Your task to perform on an android device: clear all cookies in the chrome app Image 0: 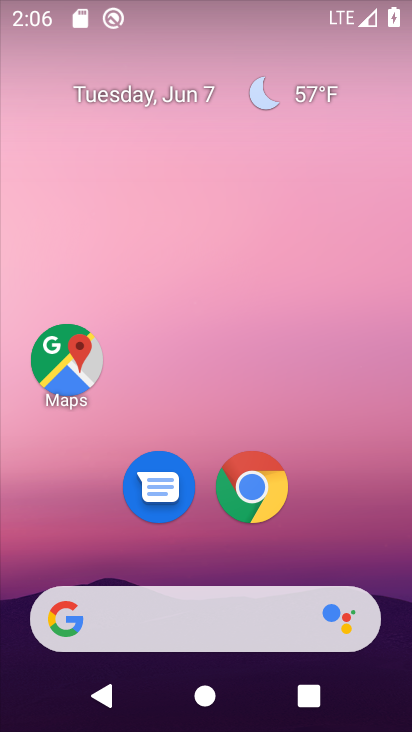
Step 0: click (263, 488)
Your task to perform on an android device: clear all cookies in the chrome app Image 1: 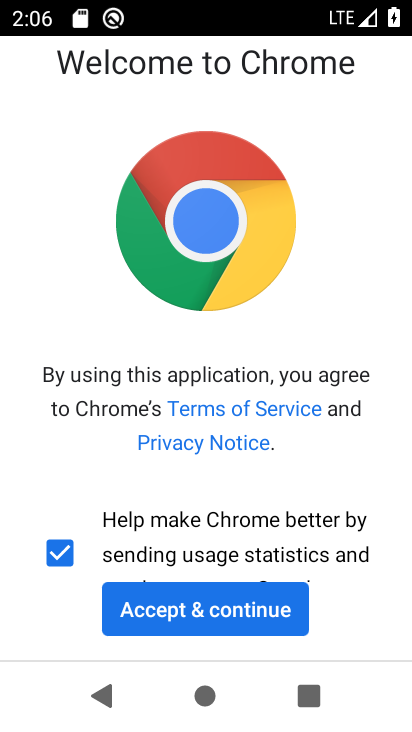
Step 1: click (253, 600)
Your task to perform on an android device: clear all cookies in the chrome app Image 2: 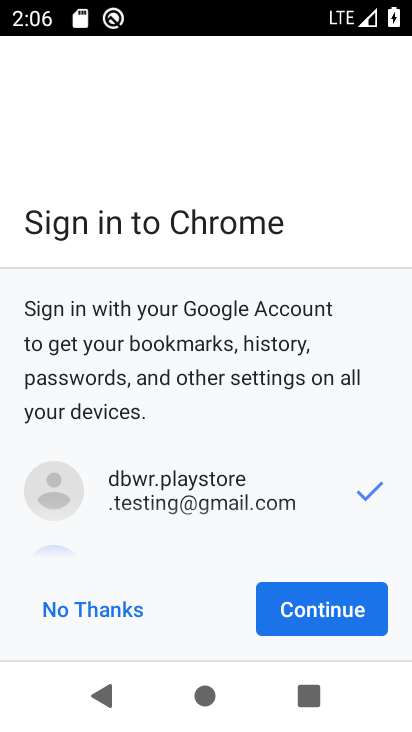
Step 2: click (291, 601)
Your task to perform on an android device: clear all cookies in the chrome app Image 3: 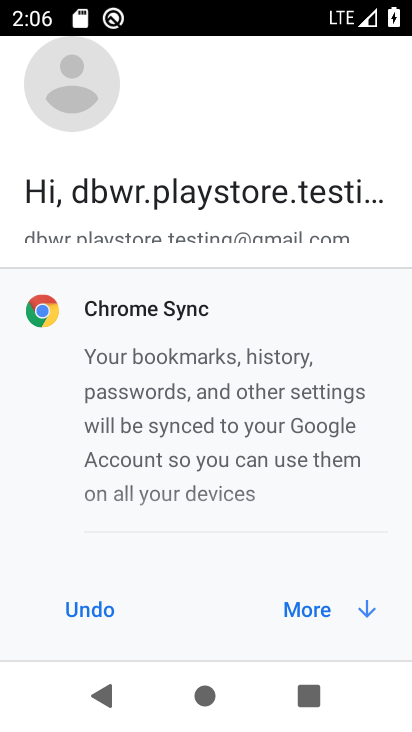
Step 3: click (311, 623)
Your task to perform on an android device: clear all cookies in the chrome app Image 4: 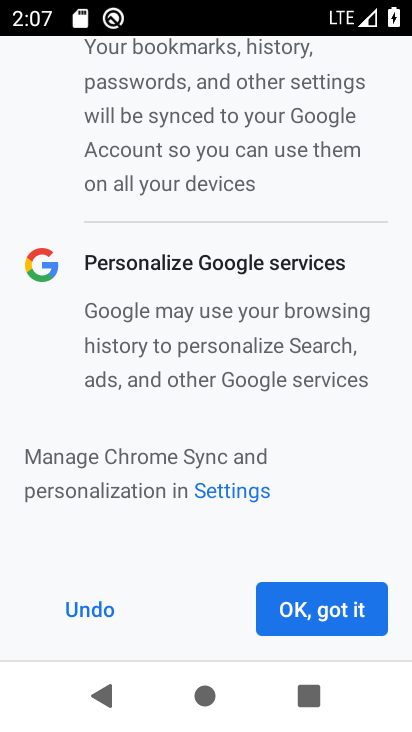
Step 4: click (315, 616)
Your task to perform on an android device: clear all cookies in the chrome app Image 5: 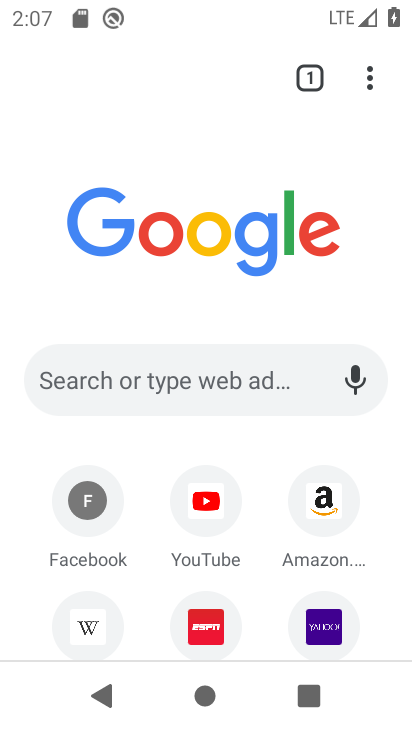
Step 5: click (361, 81)
Your task to perform on an android device: clear all cookies in the chrome app Image 6: 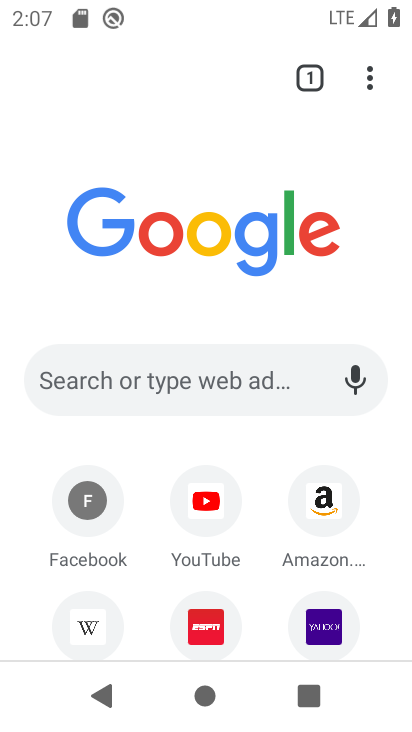
Step 6: task complete